Your task to perform on an android device: change the clock display to digital Image 0: 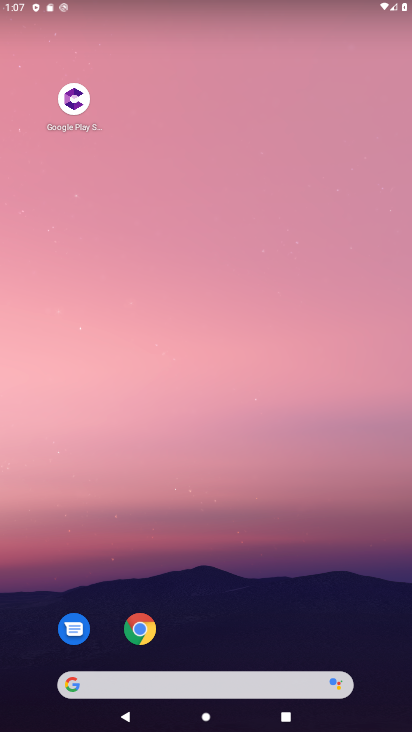
Step 0: drag from (203, 600) to (212, 102)
Your task to perform on an android device: change the clock display to digital Image 1: 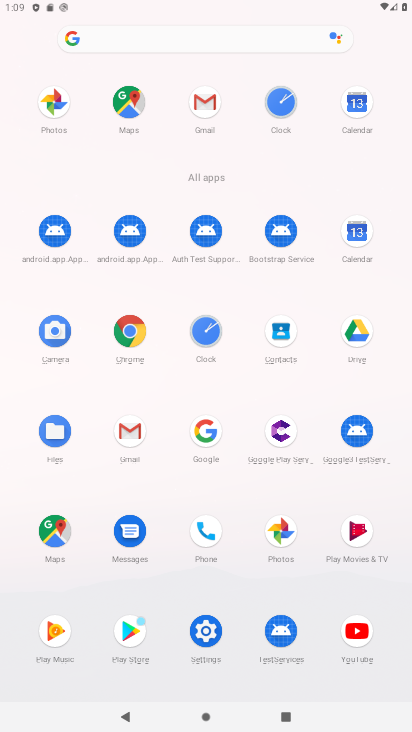
Step 1: click (246, 106)
Your task to perform on an android device: change the clock display to digital Image 2: 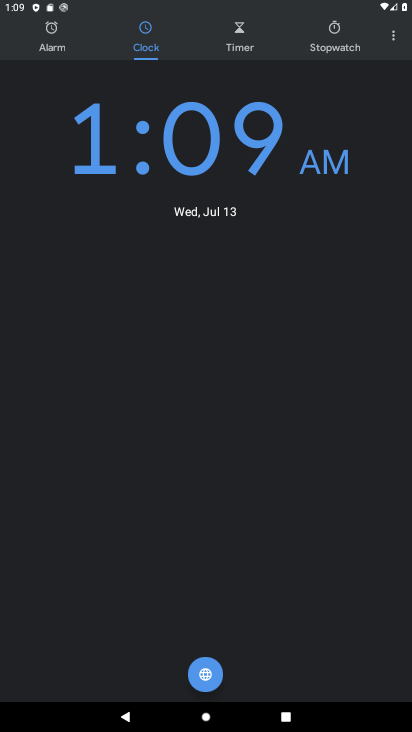
Step 2: click (386, 38)
Your task to perform on an android device: change the clock display to digital Image 3: 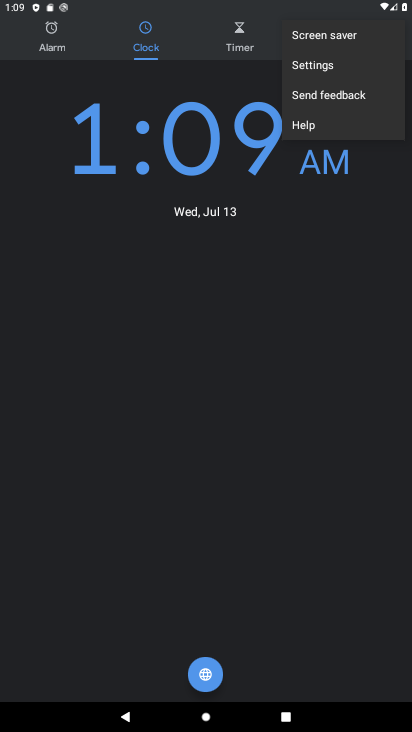
Step 3: click (345, 67)
Your task to perform on an android device: change the clock display to digital Image 4: 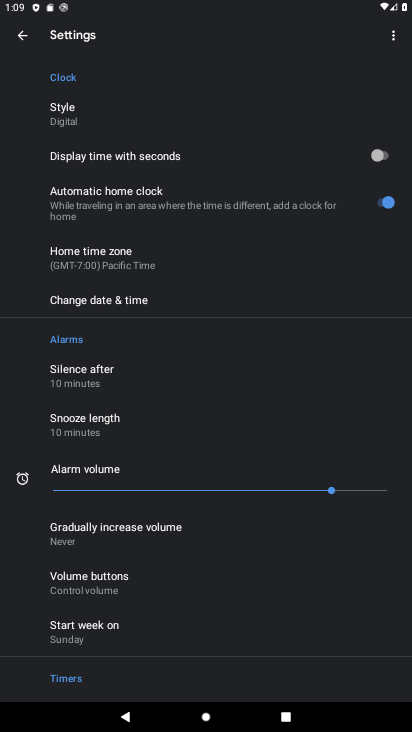
Step 4: click (190, 125)
Your task to perform on an android device: change the clock display to digital Image 5: 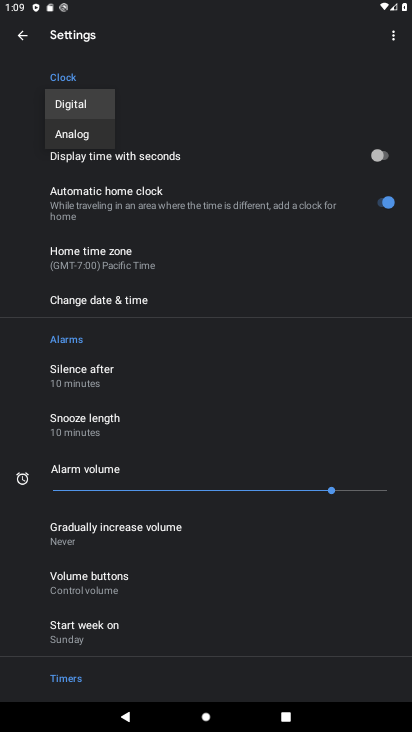
Step 5: task complete